Your task to perform on an android device: Search for 24"x36" picture frame on Home Depot. Image 0: 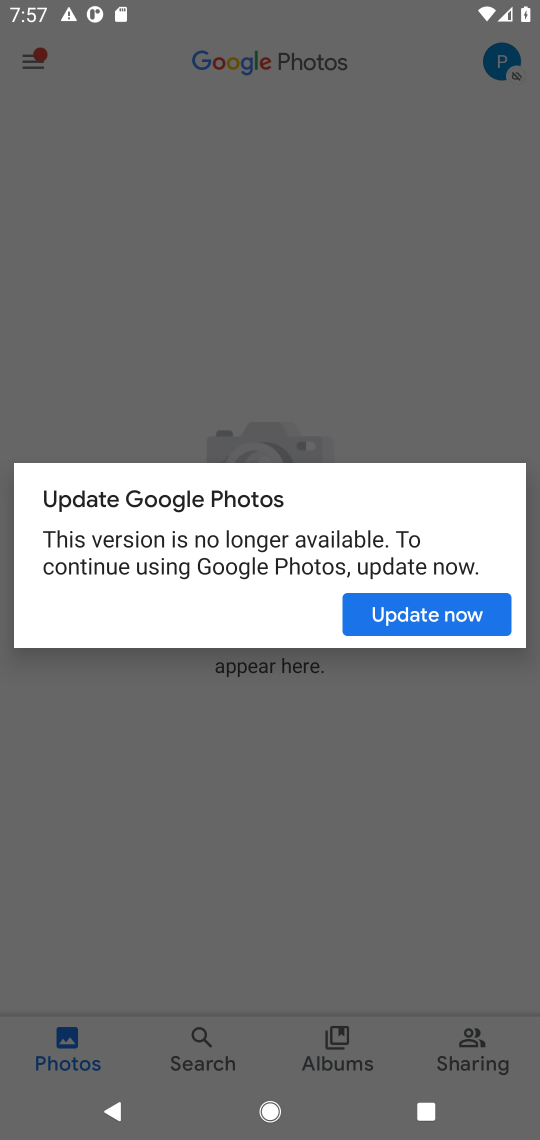
Step 0: click (436, 628)
Your task to perform on an android device: Search for 24"x36" picture frame on Home Depot. Image 1: 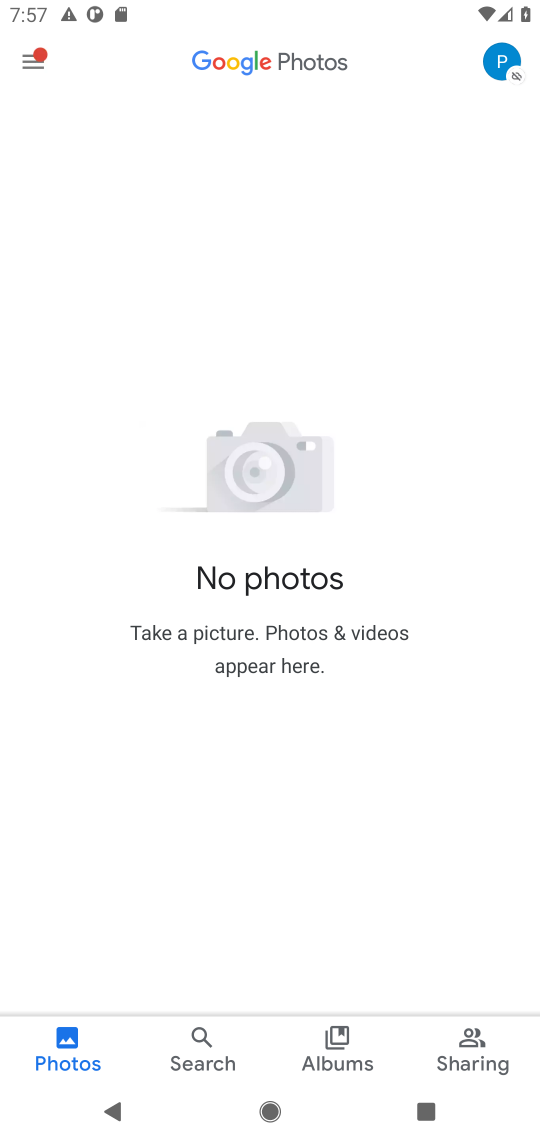
Step 1: click (363, 1044)
Your task to perform on an android device: Search for 24"x36" picture frame on Home Depot. Image 2: 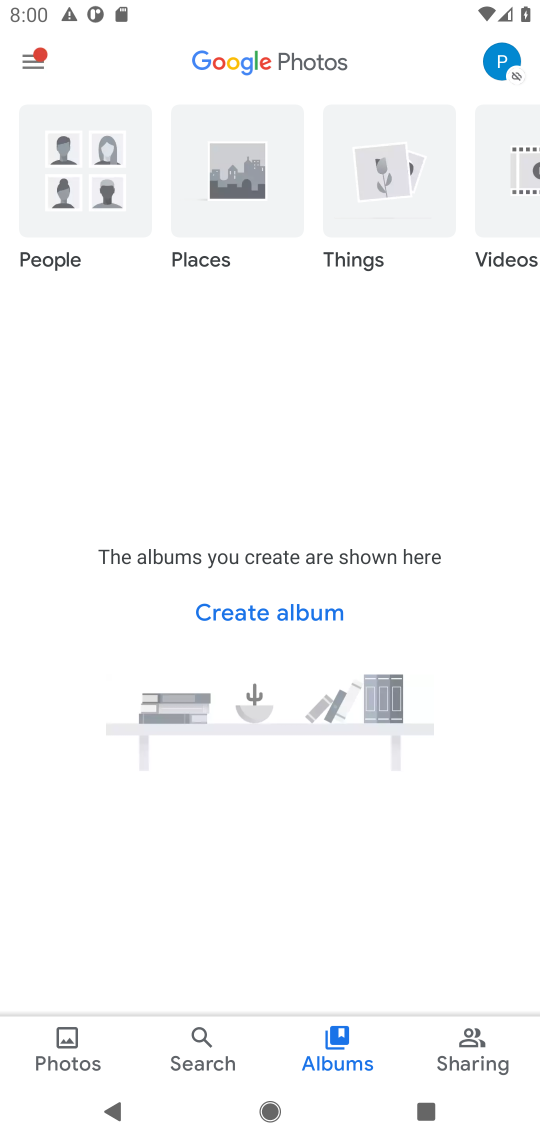
Step 2: task complete